Your task to perform on an android device: Go to calendar. Show me events next week Image 0: 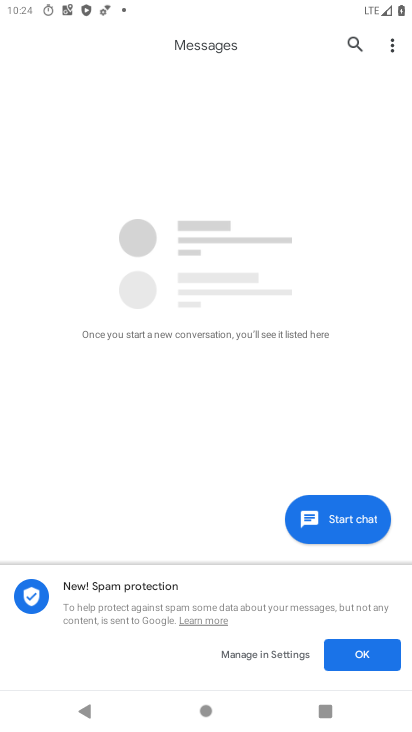
Step 0: click (244, 527)
Your task to perform on an android device: Go to calendar. Show me events next week Image 1: 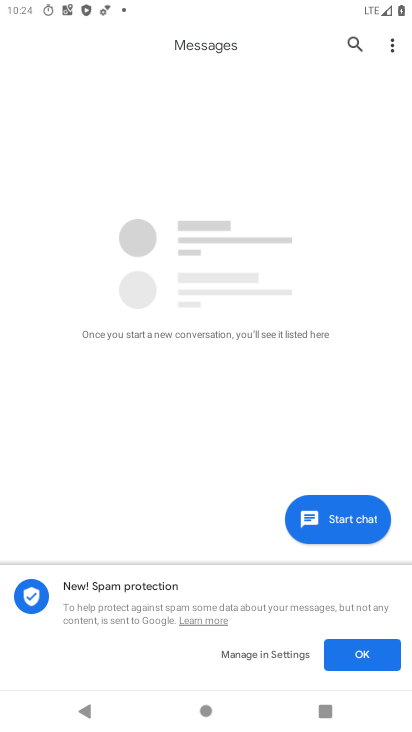
Step 1: press home button
Your task to perform on an android device: Go to calendar. Show me events next week Image 2: 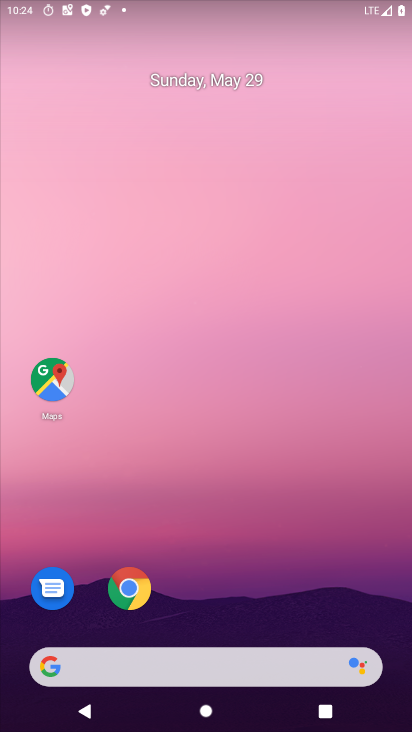
Step 2: drag from (275, 588) to (308, 183)
Your task to perform on an android device: Go to calendar. Show me events next week Image 3: 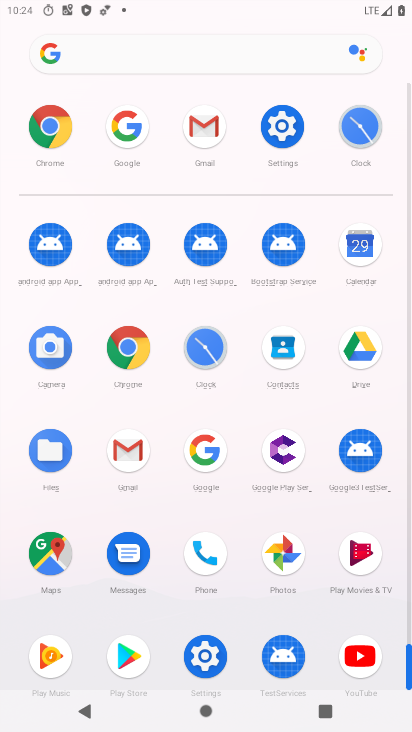
Step 3: click (354, 257)
Your task to perform on an android device: Go to calendar. Show me events next week Image 4: 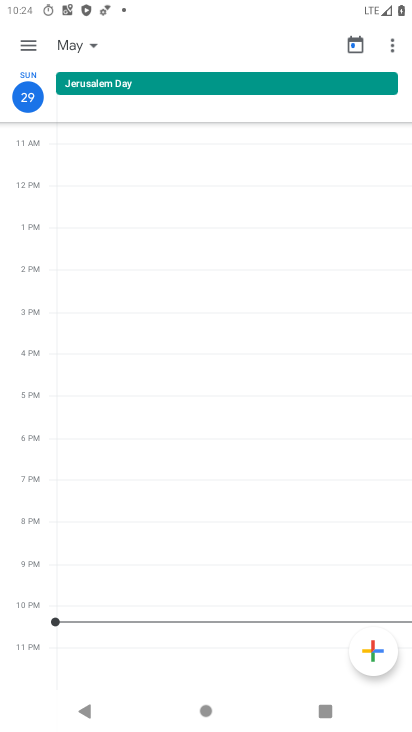
Step 4: click (24, 39)
Your task to perform on an android device: Go to calendar. Show me events next week Image 5: 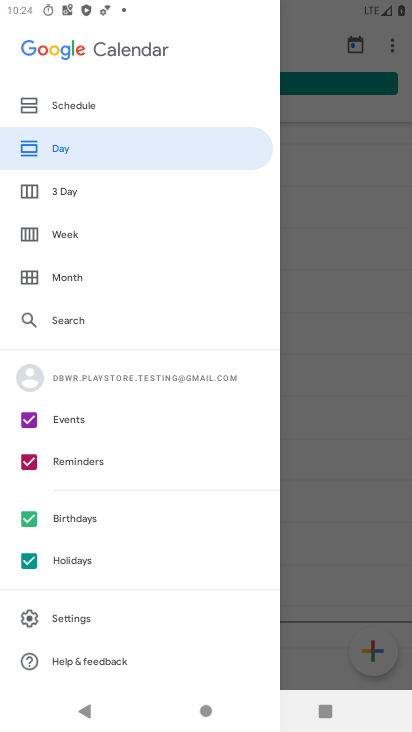
Step 5: click (99, 245)
Your task to perform on an android device: Go to calendar. Show me events next week Image 6: 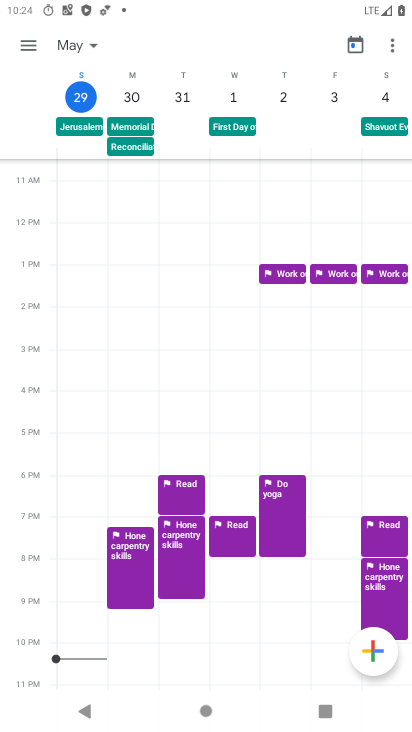
Step 6: click (80, 51)
Your task to perform on an android device: Go to calendar. Show me events next week Image 7: 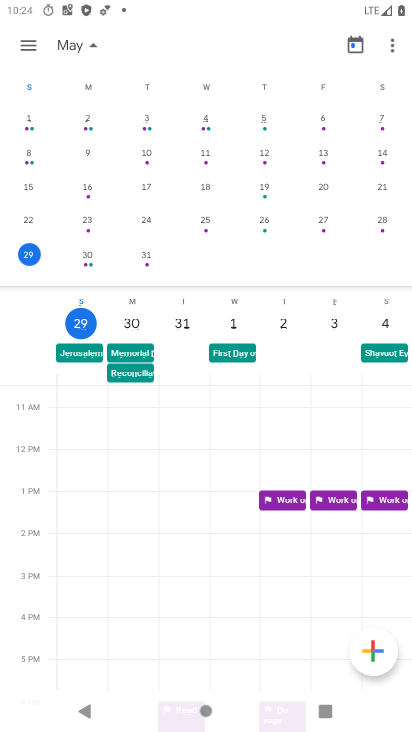
Step 7: drag from (280, 207) to (0, 179)
Your task to perform on an android device: Go to calendar. Show me events next week Image 8: 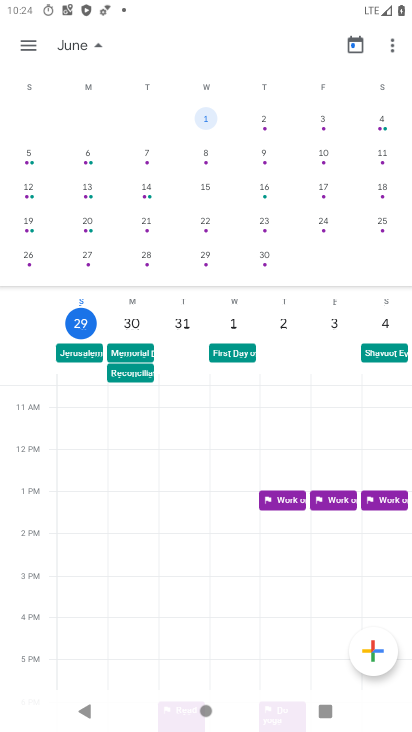
Step 8: click (210, 117)
Your task to perform on an android device: Go to calendar. Show me events next week Image 9: 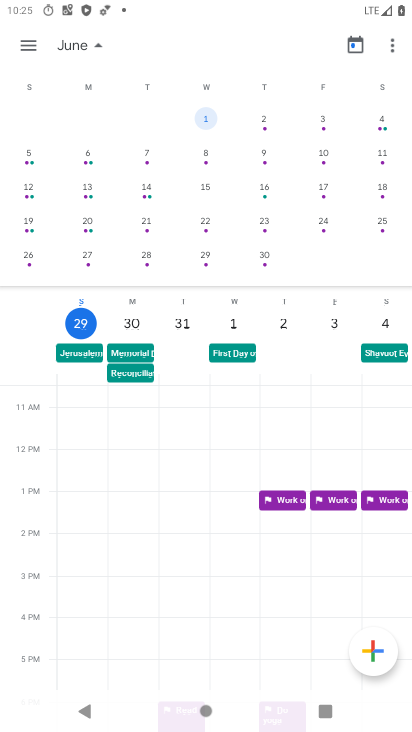
Step 9: click (191, 119)
Your task to perform on an android device: Go to calendar. Show me events next week Image 10: 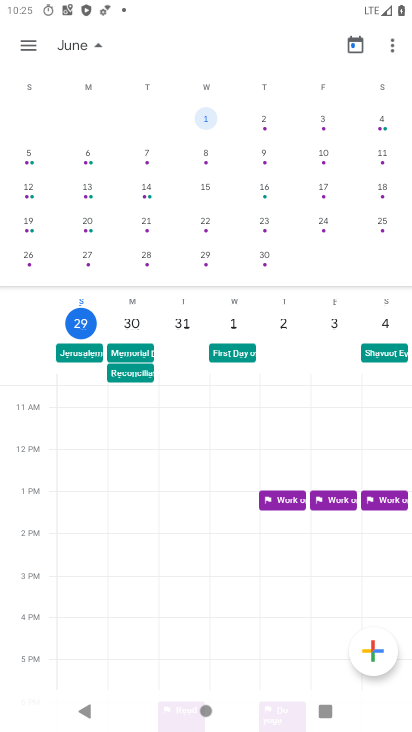
Step 10: click (99, 49)
Your task to perform on an android device: Go to calendar. Show me events next week Image 11: 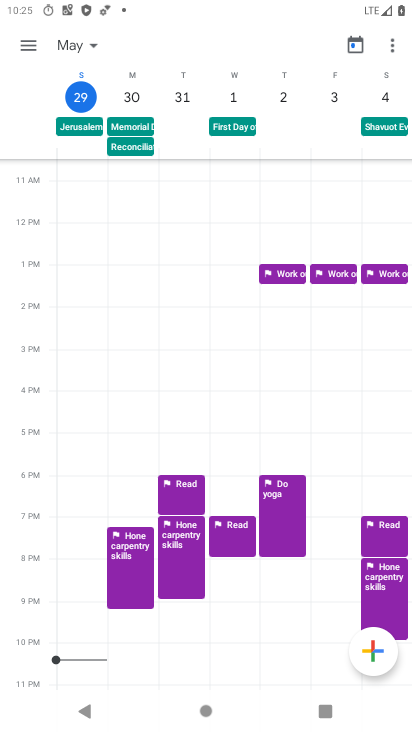
Step 11: task complete